Your task to perform on an android device: see creations saved in the google photos Image 0: 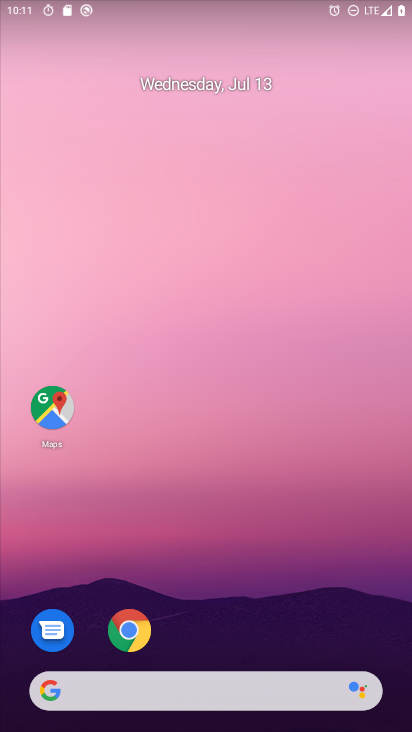
Step 0: drag from (391, 671) to (251, 82)
Your task to perform on an android device: see creations saved in the google photos Image 1: 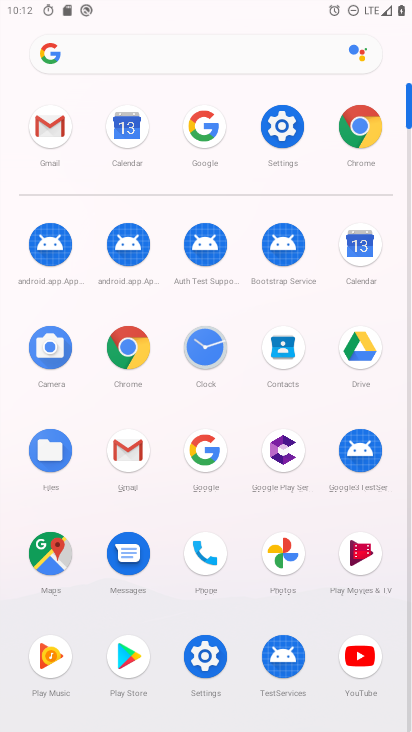
Step 1: click (279, 554)
Your task to perform on an android device: see creations saved in the google photos Image 2: 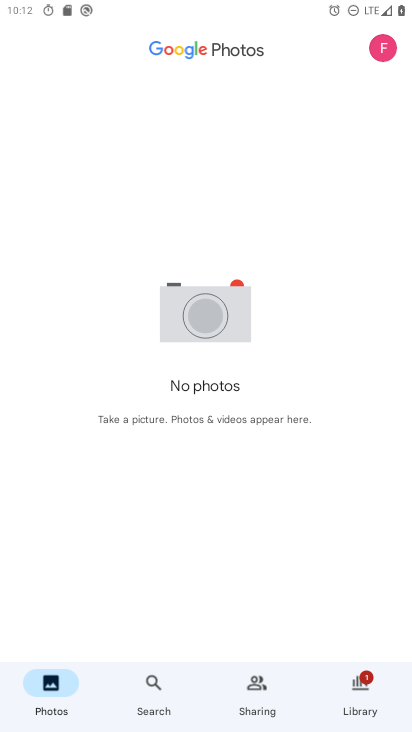
Step 2: click (176, 43)
Your task to perform on an android device: see creations saved in the google photos Image 3: 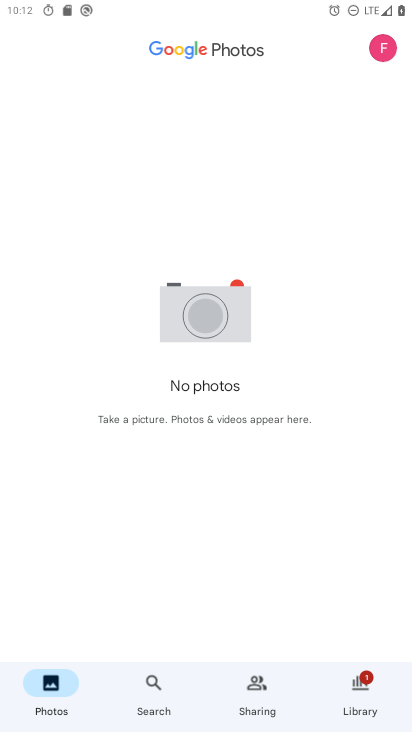
Step 3: click (157, 673)
Your task to perform on an android device: see creations saved in the google photos Image 4: 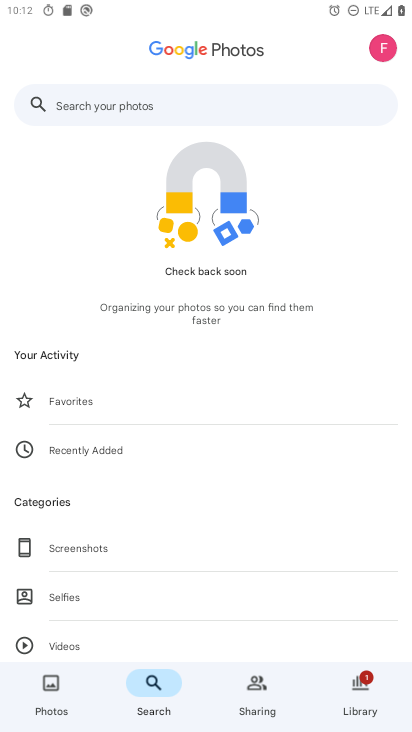
Step 4: drag from (97, 608) to (69, 182)
Your task to perform on an android device: see creations saved in the google photos Image 5: 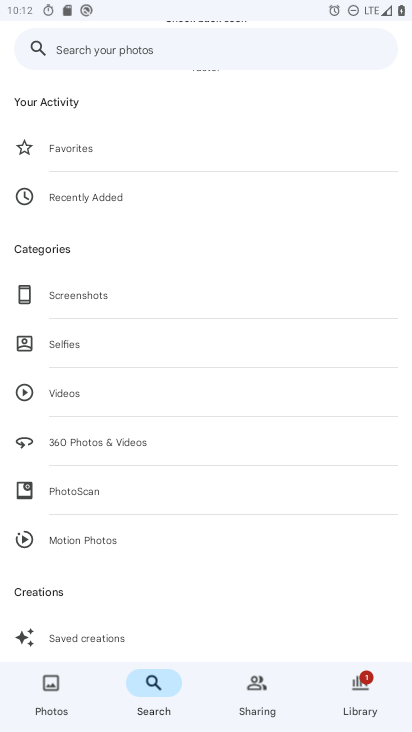
Step 5: click (99, 640)
Your task to perform on an android device: see creations saved in the google photos Image 6: 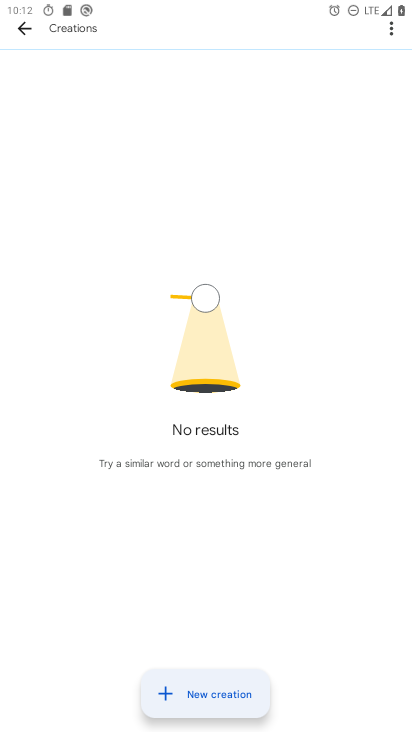
Step 6: task complete